Your task to perform on an android device: Open battery settings Image 0: 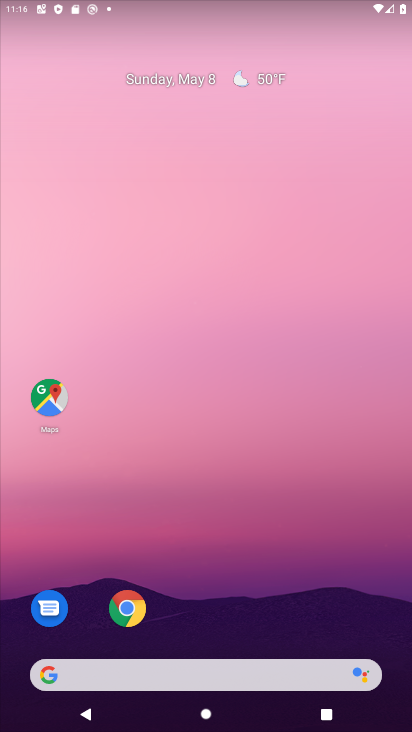
Step 0: drag from (202, 507) to (237, 0)
Your task to perform on an android device: Open battery settings Image 1: 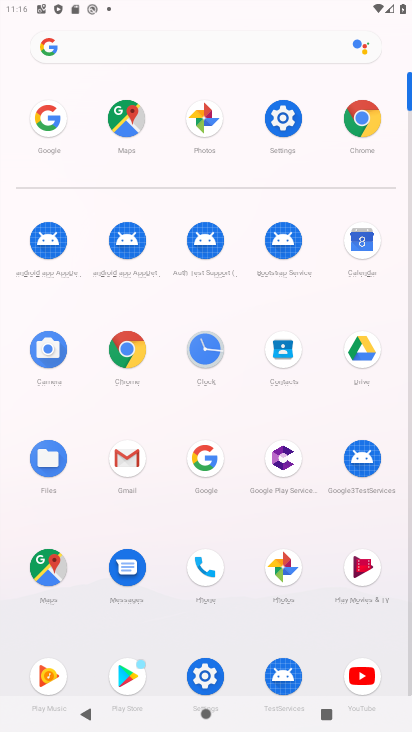
Step 1: click (297, 130)
Your task to perform on an android device: Open battery settings Image 2: 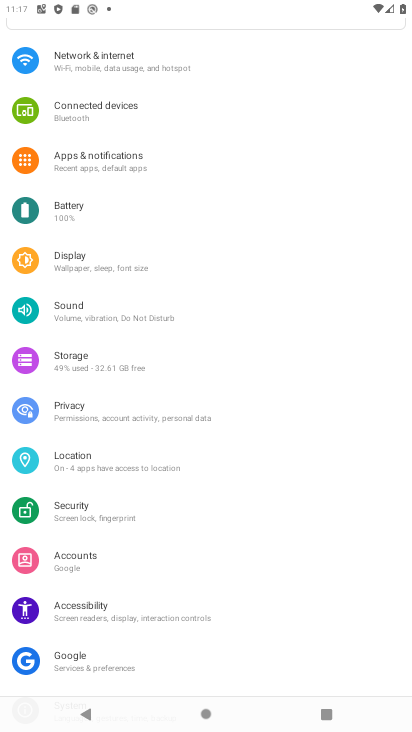
Step 2: click (95, 217)
Your task to perform on an android device: Open battery settings Image 3: 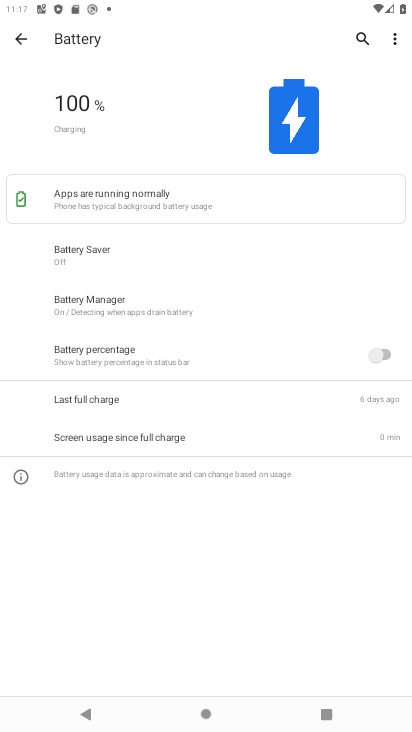
Step 3: task complete